Your task to perform on an android device: turn on sleep mode Image 0: 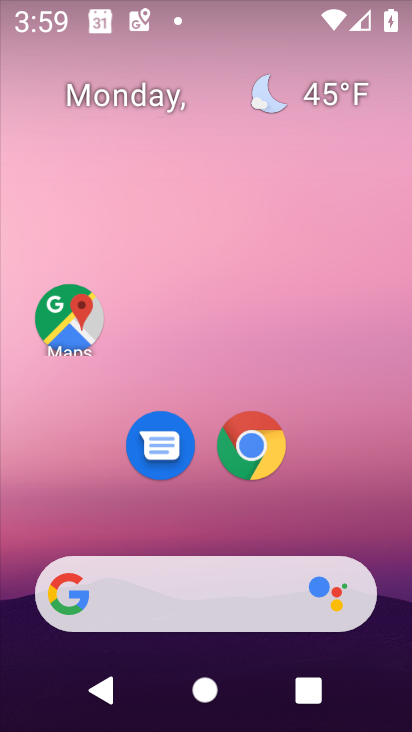
Step 0: drag from (321, 529) to (309, 96)
Your task to perform on an android device: turn on sleep mode Image 1: 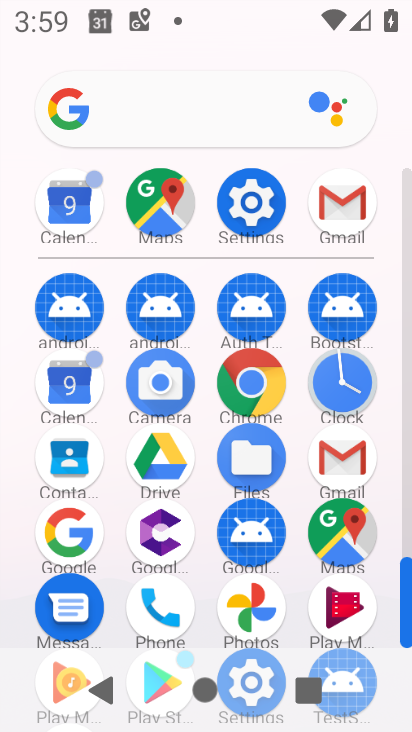
Step 1: click (245, 207)
Your task to perform on an android device: turn on sleep mode Image 2: 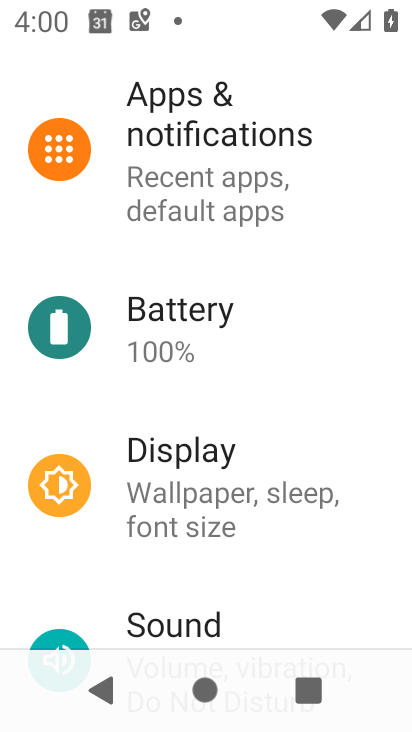
Step 2: click (271, 472)
Your task to perform on an android device: turn on sleep mode Image 3: 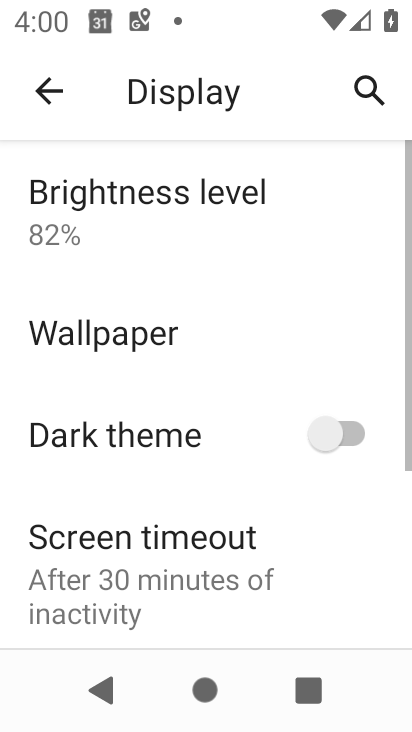
Step 3: drag from (243, 558) to (230, 241)
Your task to perform on an android device: turn on sleep mode Image 4: 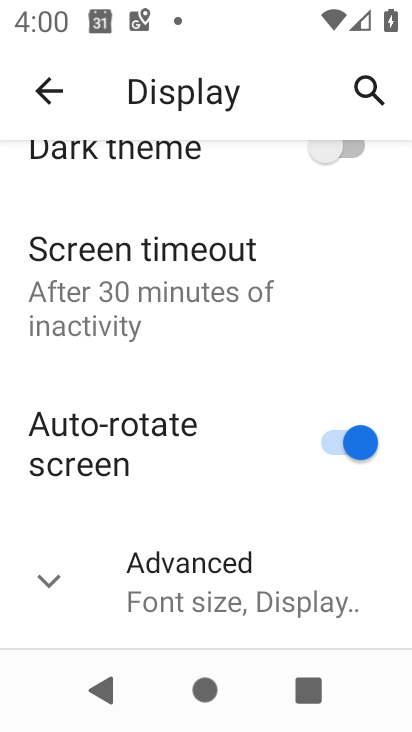
Step 4: click (199, 581)
Your task to perform on an android device: turn on sleep mode Image 5: 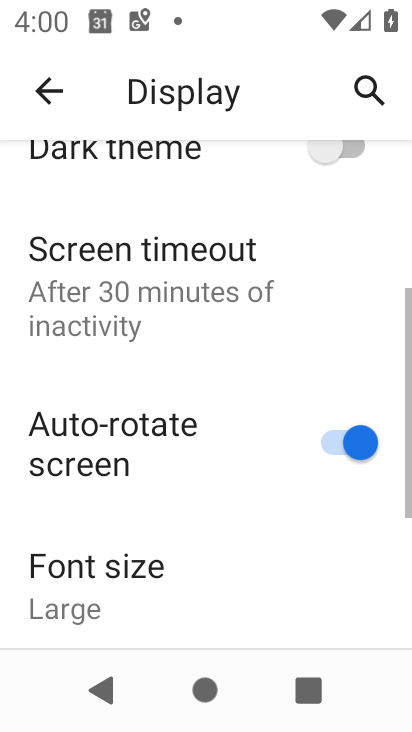
Step 5: task complete